Your task to perform on an android device: Show me recent news Image 0: 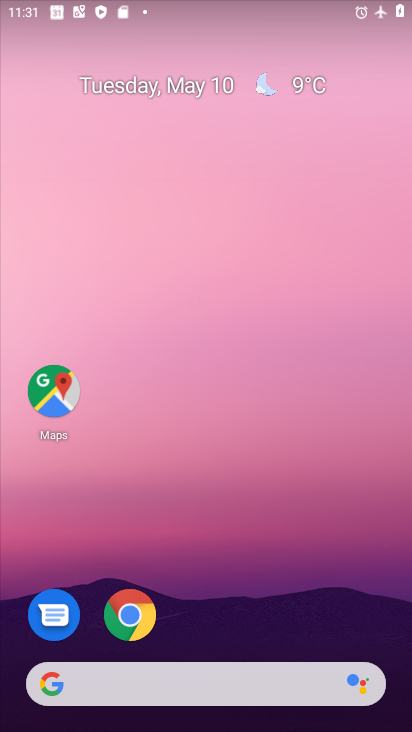
Step 0: drag from (7, 286) to (387, 310)
Your task to perform on an android device: Show me recent news Image 1: 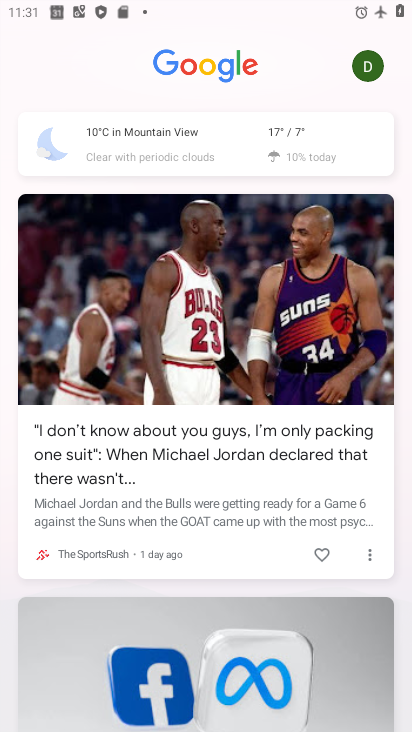
Step 1: task complete